Your task to perform on an android device: Open Google Image 0: 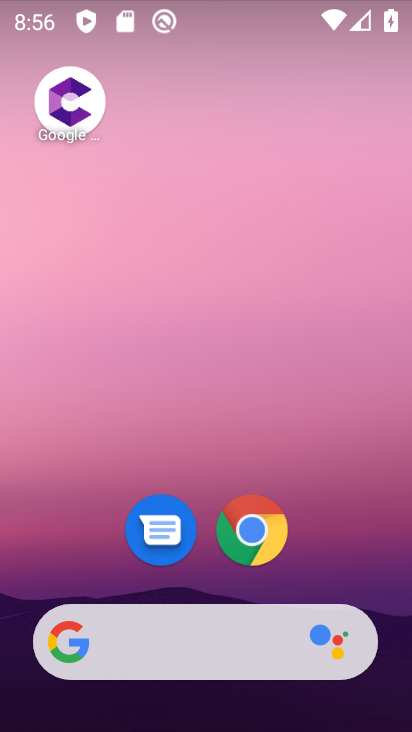
Step 0: drag from (356, 546) to (267, 0)
Your task to perform on an android device: Open Google Image 1: 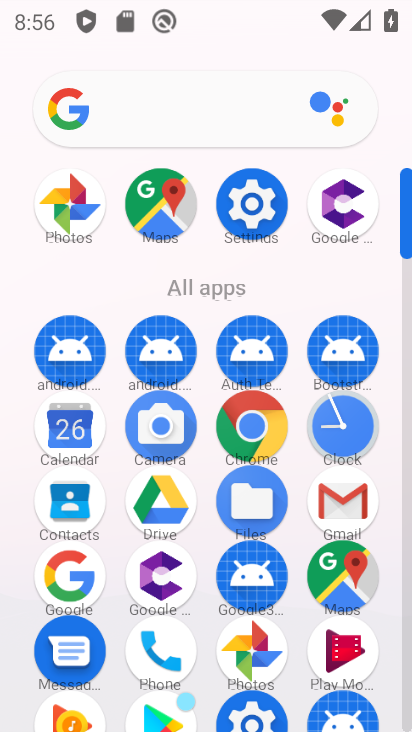
Step 1: click (250, 420)
Your task to perform on an android device: Open Google Image 2: 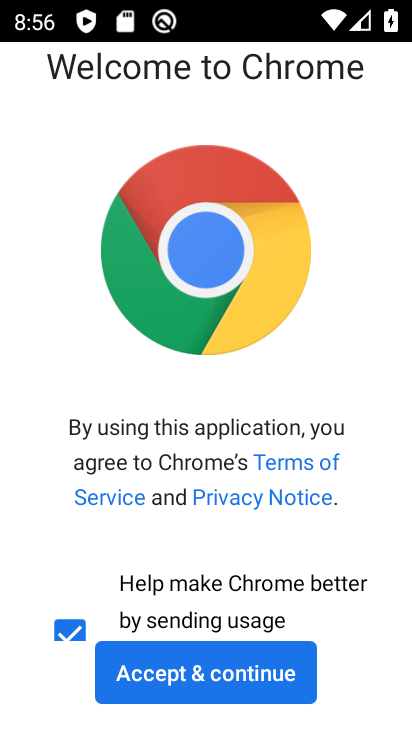
Step 2: click (239, 662)
Your task to perform on an android device: Open Google Image 3: 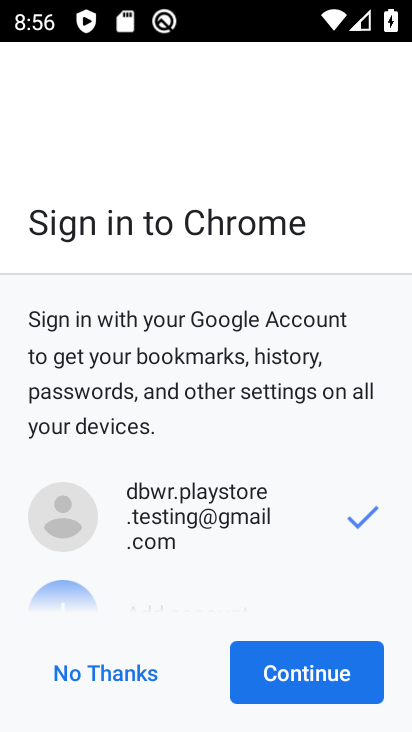
Step 3: click (282, 671)
Your task to perform on an android device: Open Google Image 4: 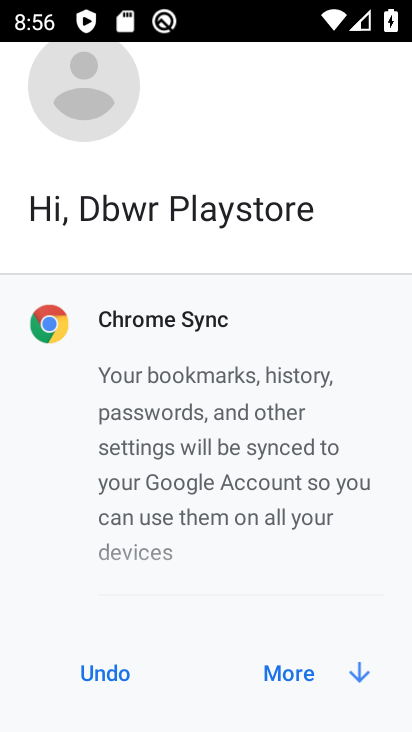
Step 4: click (283, 669)
Your task to perform on an android device: Open Google Image 5: 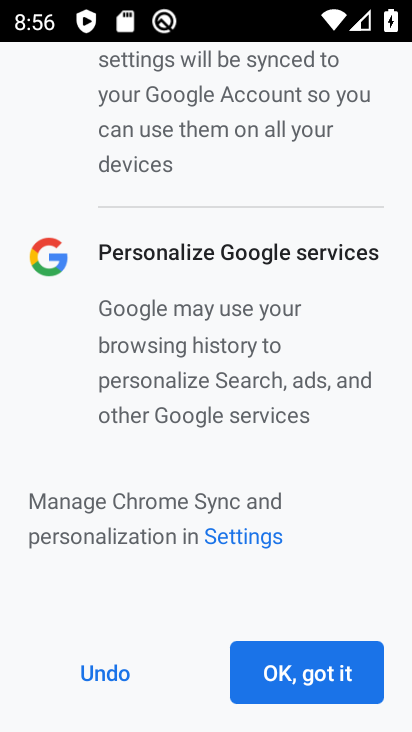
Step 5: click (293, 675)
Your task to perform on an android device: Open Google Image 6: 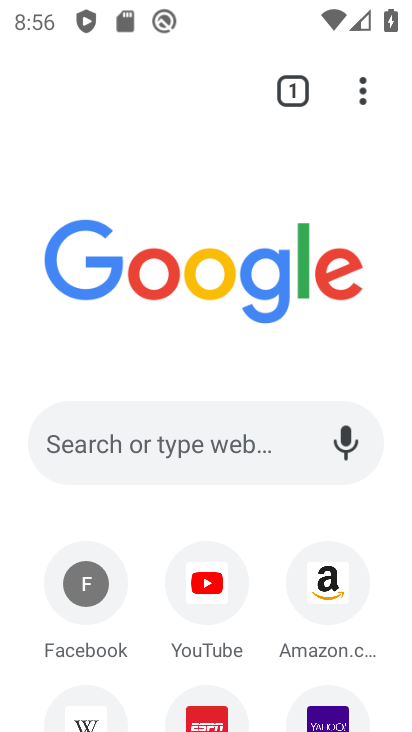
Step 6: click (209, 274)
Your task to perform on an android device: Open Google Image 7: 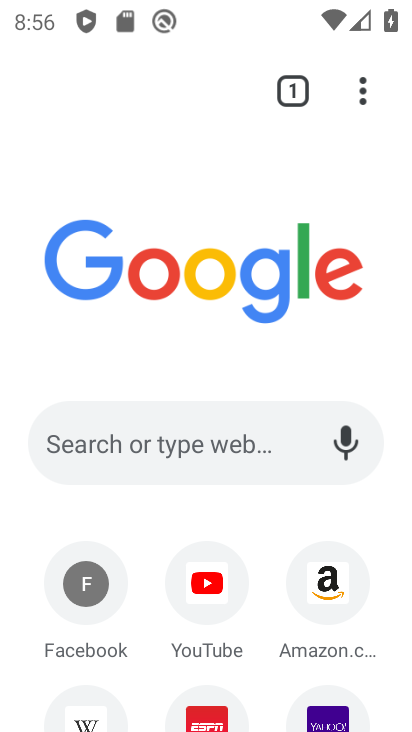
Step 7: click (200, 444)
Your task to perform on an android device: Open Google Image 8: 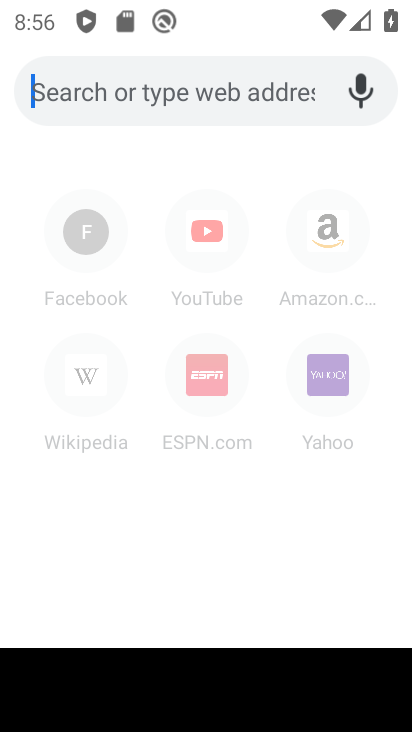
Step 8: type " Google"
Your task to perform on an android device: Open Google Image 9: 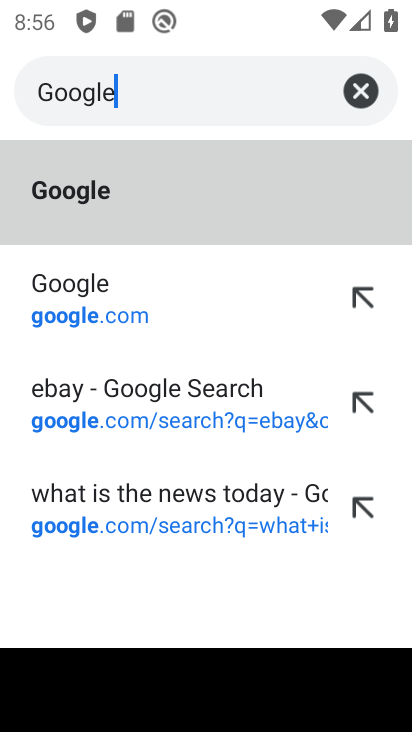
Step 9: type ""
Your task to perform on an android device: Open Google Image 10: 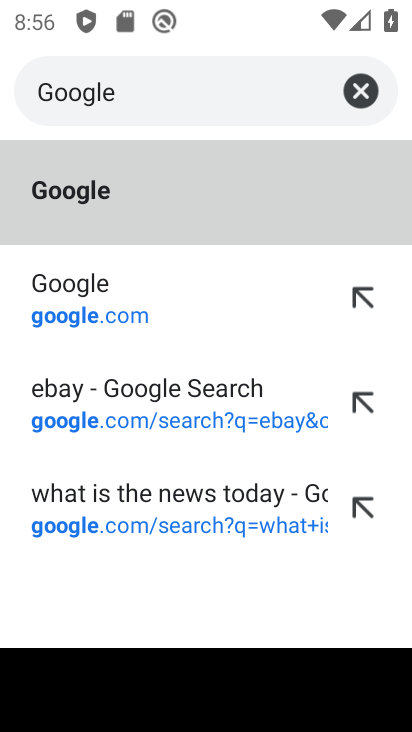
Step 10: click (76, 290)
Your task to perform on an android device: Open Google Image 11: 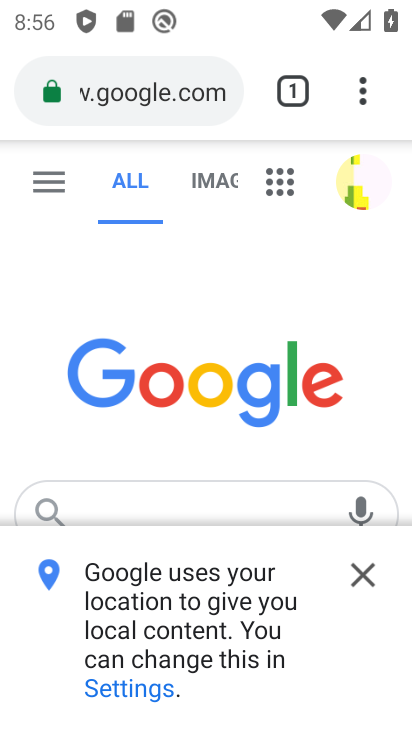
Step 11: task complete